Your task to perform on an android device: Open calendar and show me the second week of next month Image 0: 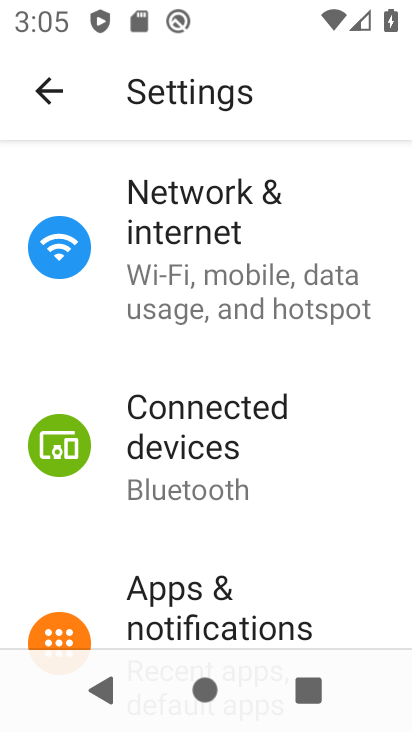
Step 0: press home button
Your task to perform on an android device: Open calendar and show me the second week of next month Image 1: 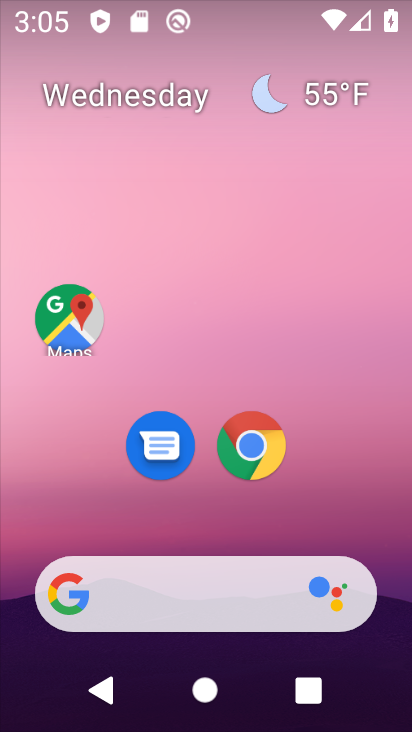
Step 1: drag from (357, 522) to (291, 15)
Your task to perform on an android device: Open calendar and show me the second week of next month Image 2: 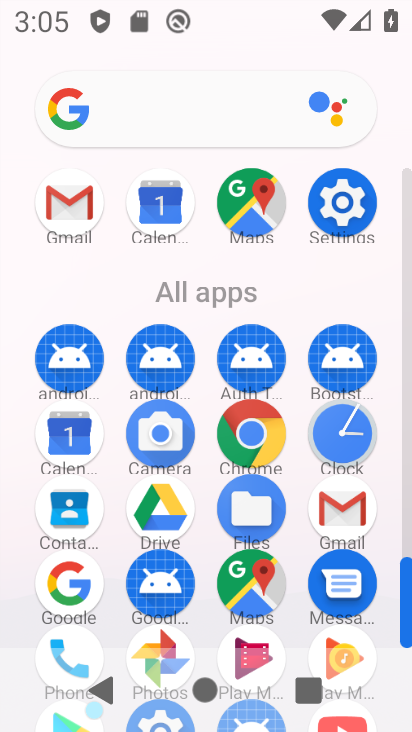
Step 2: click (70, 443)
Your task to perform on an android device: Open calendar and show me the second week of next month Image 3: 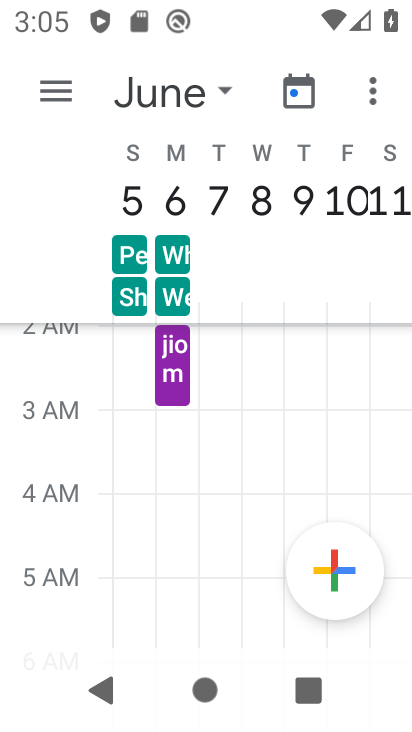
Step 3: task complete